Your task to perform on an android device: turn notification dots on Image 0: 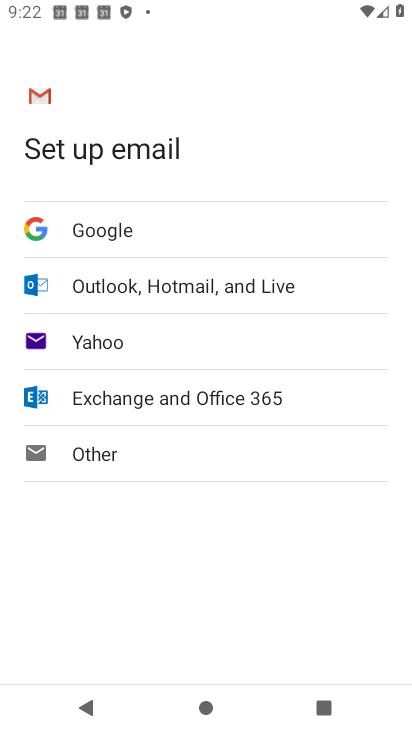
Step 0: press home button
Your task to perform on an android device: turn notification dots on Image 1: 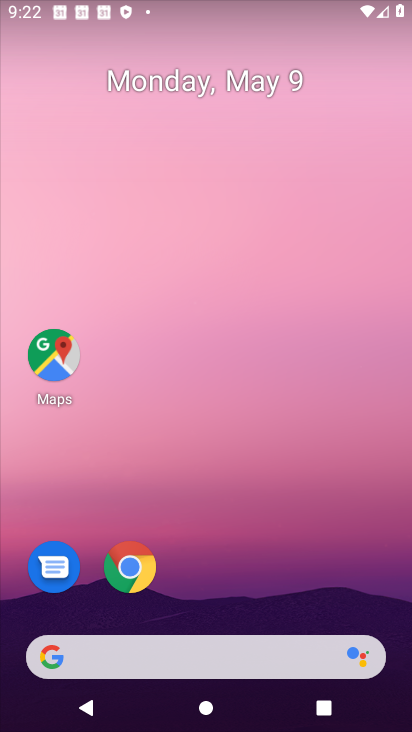
Step 1: drag from (174, 653) to (122, 237)
Your task to perform on an android device: turn notification dots on Image 2: 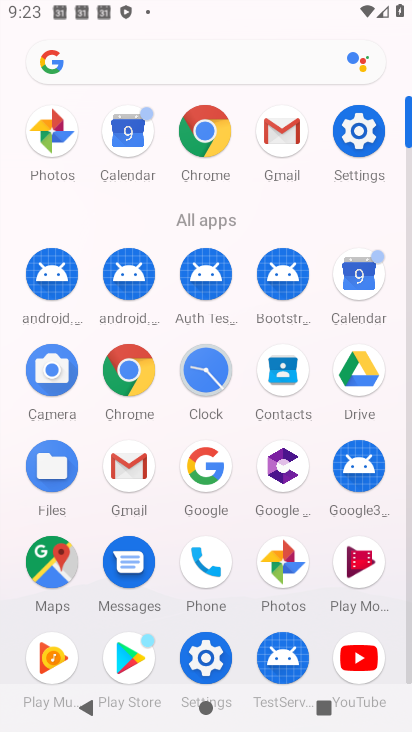
Step 2: click (359, 131)
Your task to perform on an android device: turn notification dots on Image 3: 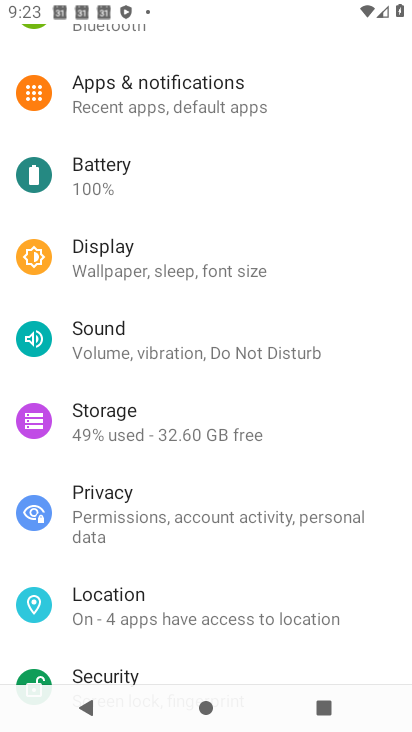
Step 3: click (148, 107)
Your task to perform on an android device: turn notification dots on Image 4: 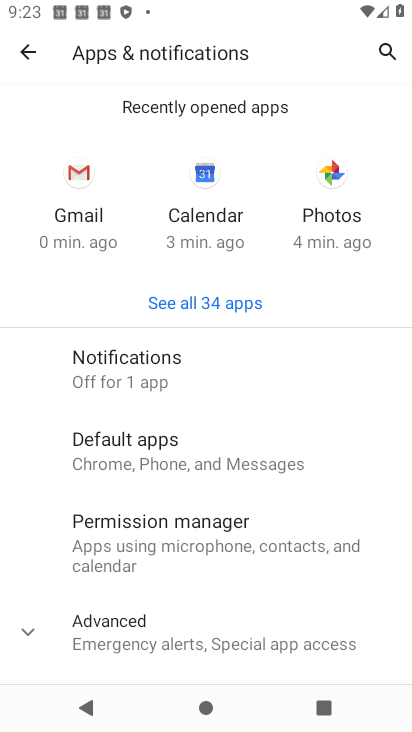
Step 4: click (120, 373)
Your task to perform on an android device: turn notification dots on Image 5: 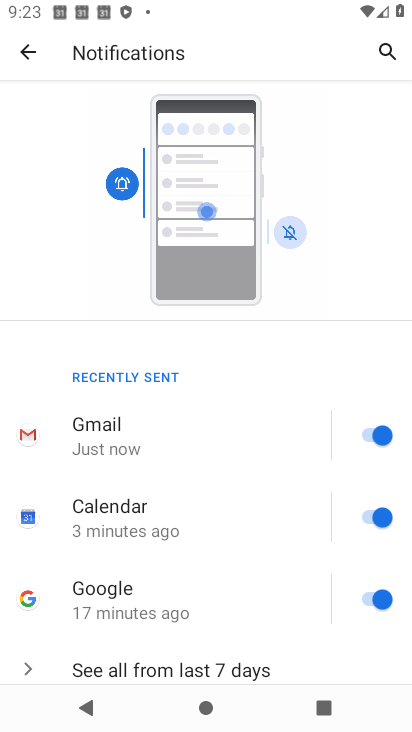
Step 5: drag from (223, 607) to (171, 207)
Your task to perform on an android device: turn notification dots on Image 6: 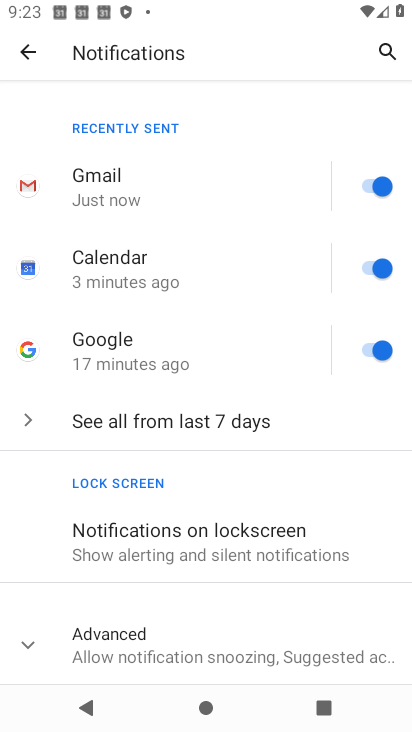
Step 6: click (160, 640)
Your task to perform on an android device: turn notification dots on Image 7: 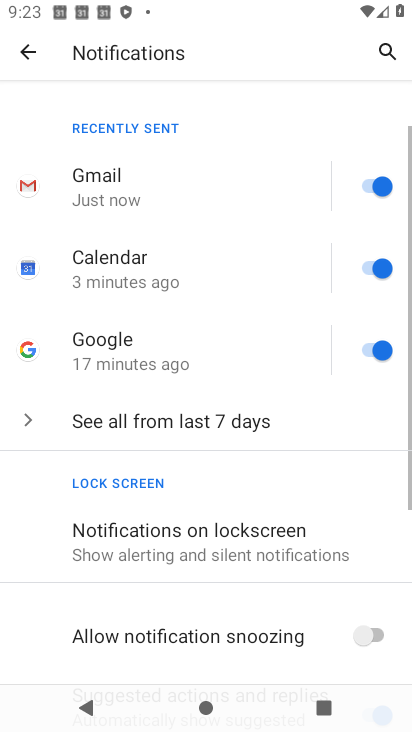
Step 7: task complete